Your task to perform on an android device: Open the downloads Image 0: 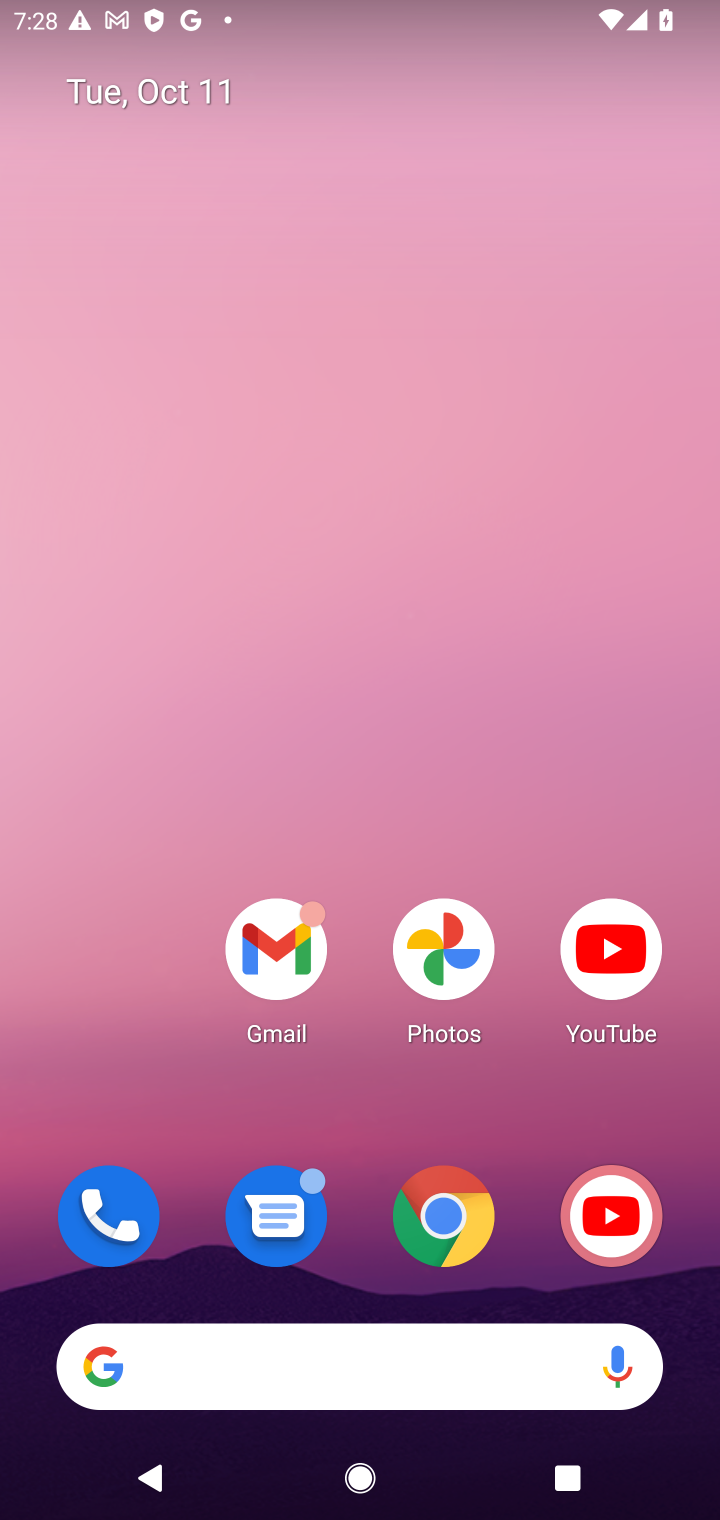
Step 0: drag from (348, 1357) to (322, 701)
Your task to perform on an android device: Open the downloads Image 1: 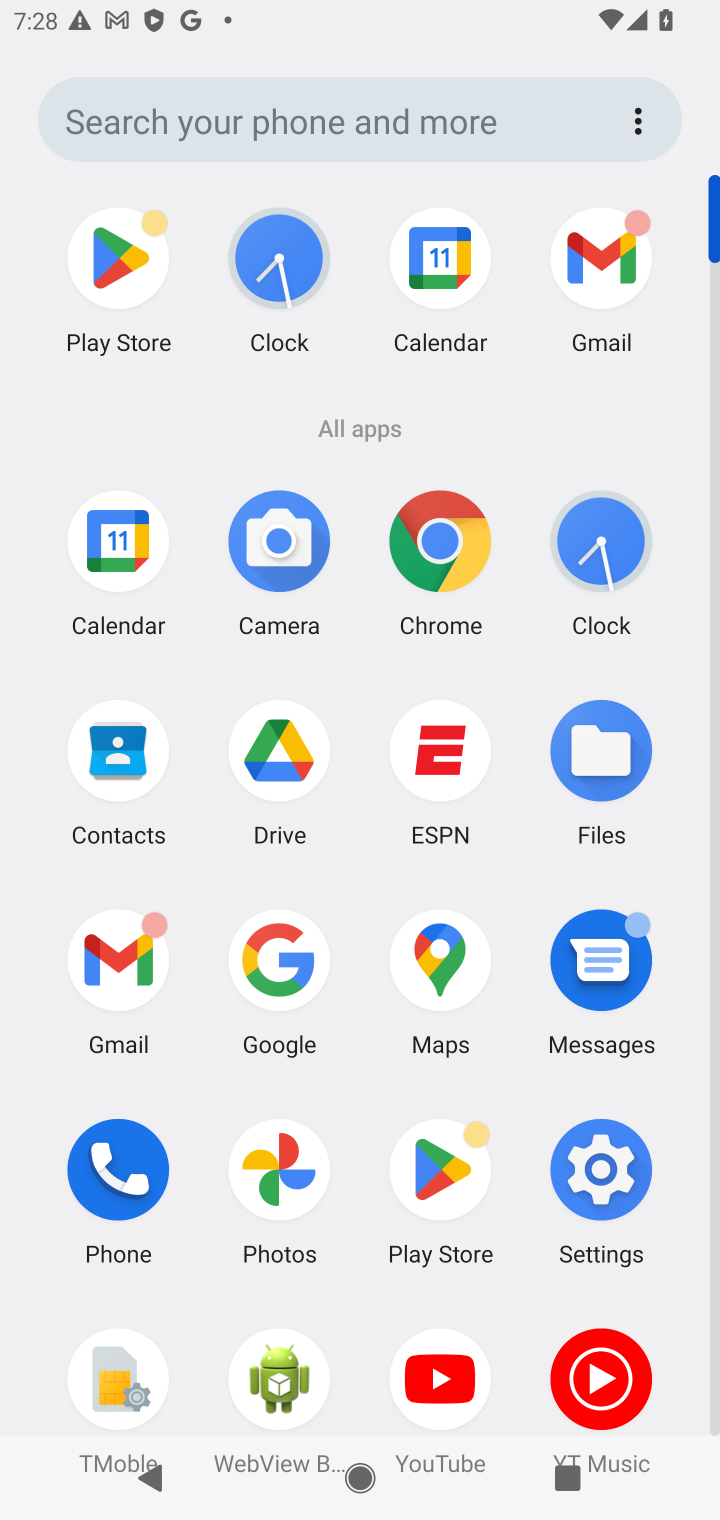
Step 1: click (566, 768)
Your task to perform on an android device: Open the downloads Image 2: 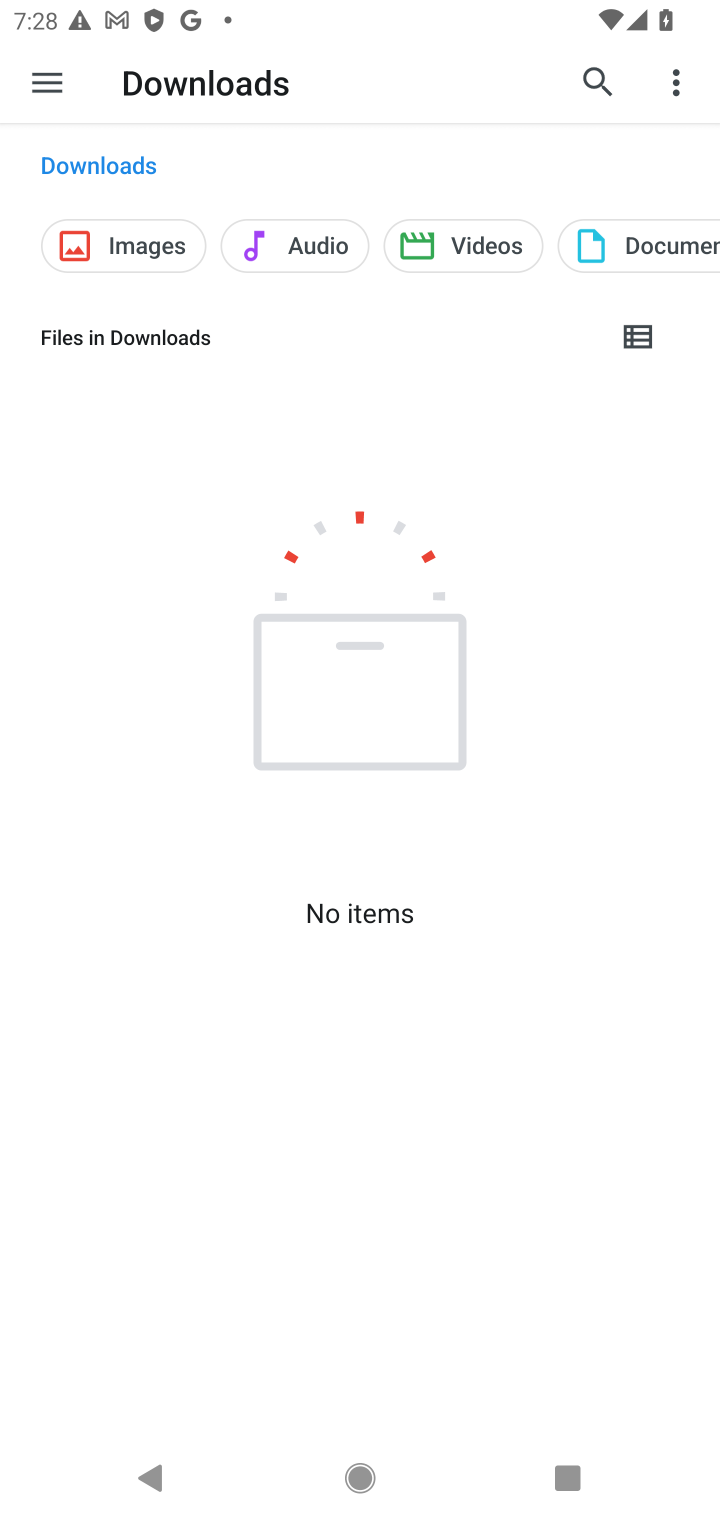
Step 2: task complete